Your task to perform on an android device: change the clock style Image 0: 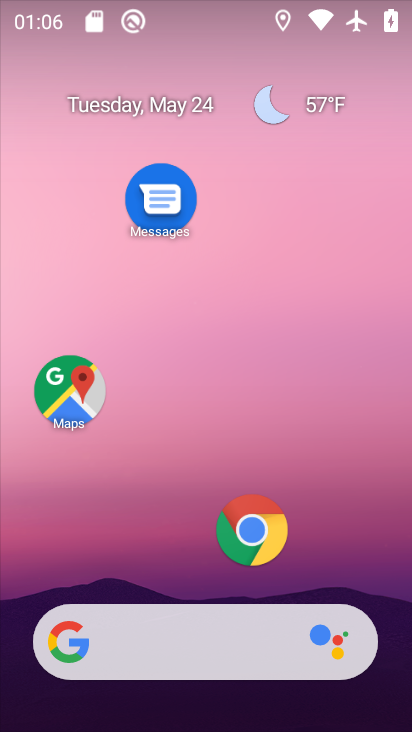
Step 0: drag from (175, 557) to (149, 0)
Your task to perform on an android device: change the clock style Image 1: 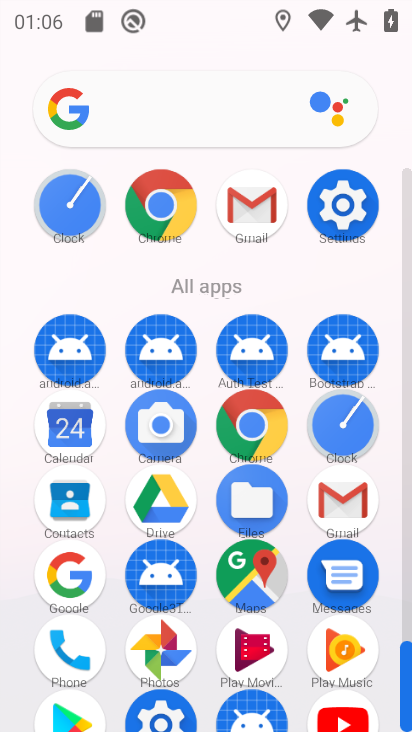
Step 1: click (328, 429)
Your task to perform on an android device: change the clock style Image 2: 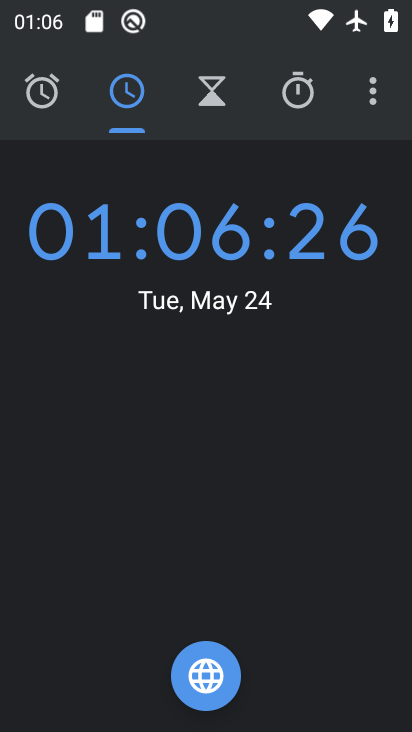
Step 2: click (341, 89)
Your task to perform on an android device: change the clock style Image 3: 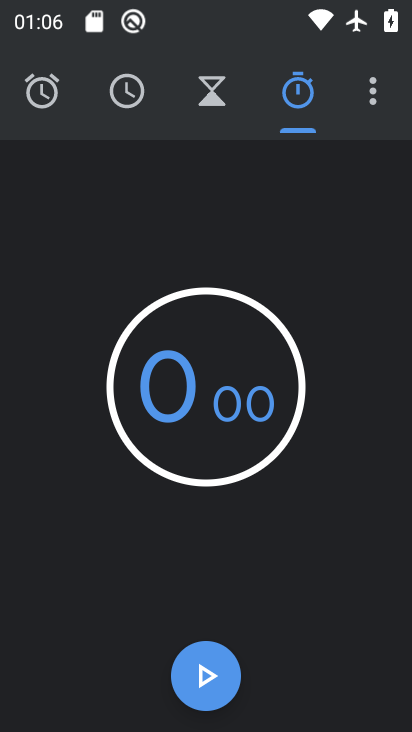
Step 3: click (348, 88)
Your task to perform on an android device: change the clock style Image 4: 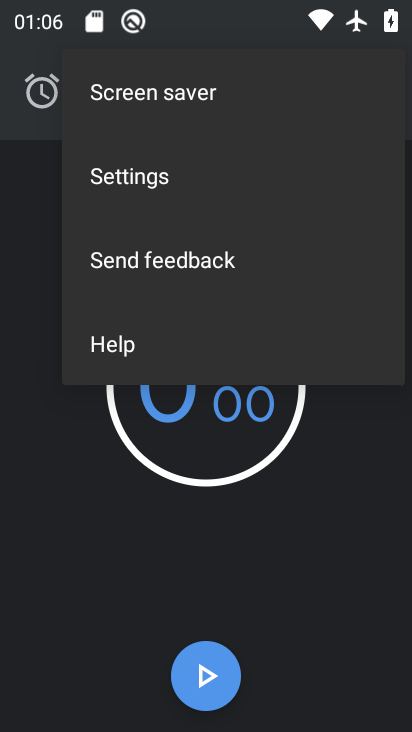
Step 4: click (90, 173)
Your task to perform on an android device: change the clock style Image 5: 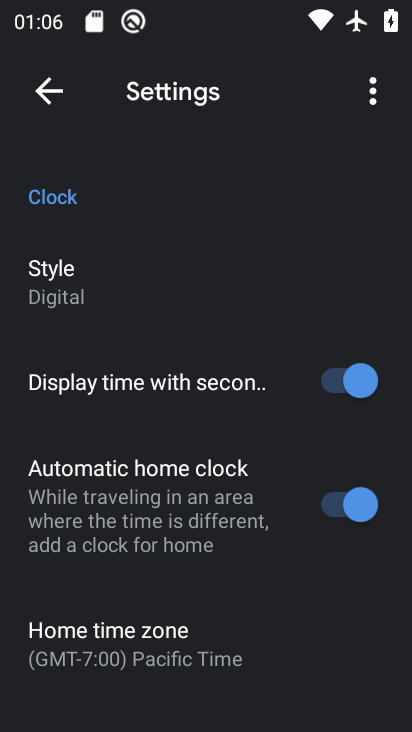
Step 5: click (158, 292)
Your task to perform on an android device: change the clock style Image 6: 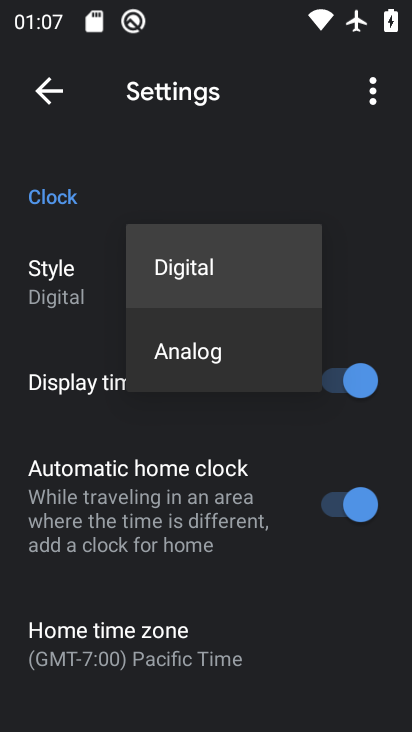
Step 6: click (207, 358)
Your task to perform on an android device: change the clock style Image 7: 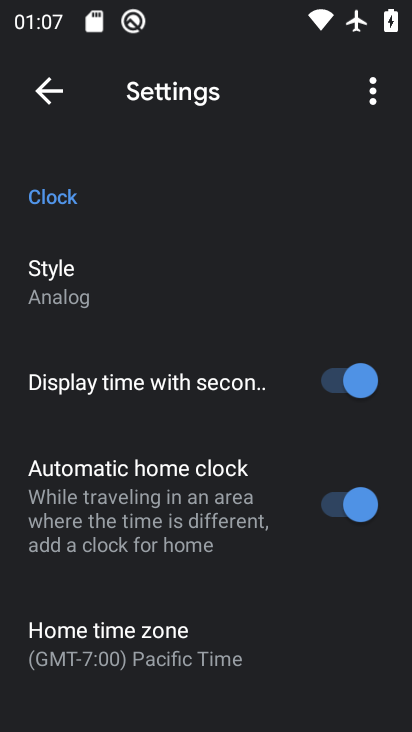
Step 7: task complete